Your task to perform on an android device: Open Google Maps and go to "Timeline" Image 0: 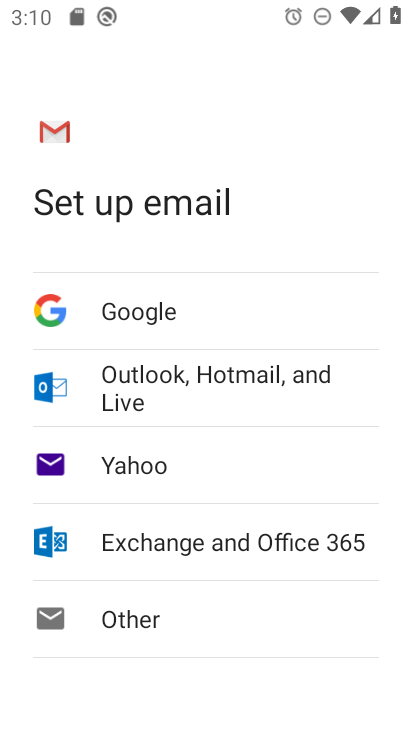
Step 0: press home button
Your task to perform on an android device: Open Google Maps and go to "Timeline" Image 1: 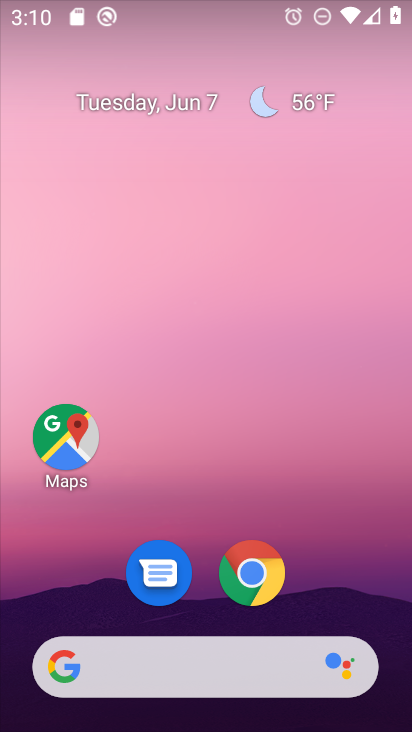
Step 1: click (64, 441)
Your task to perform on an android device: Open Google Maps and go to "Timeline" Image 2: 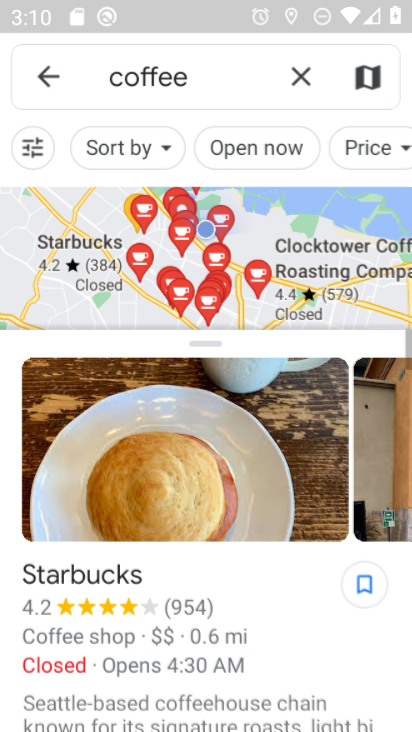
Step 2: click (54, 97)
Your task to perform on an android device: Open Google Maps and go to "Timeline" Image 3: 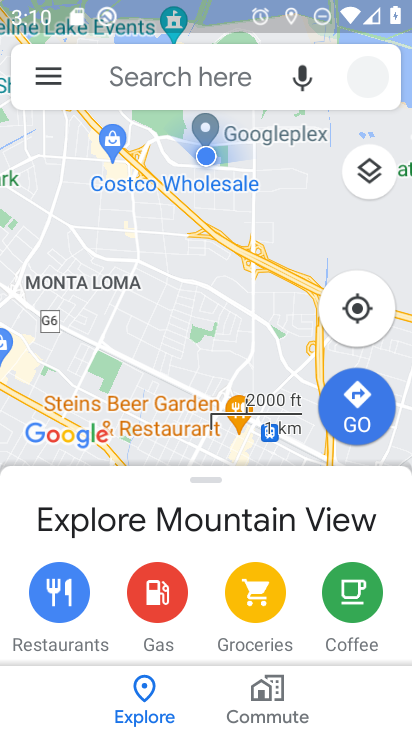
Step 3: click (54, 97)
Your task to perform on an android device: Open Google Maps and go to "Timeline" Image 4: 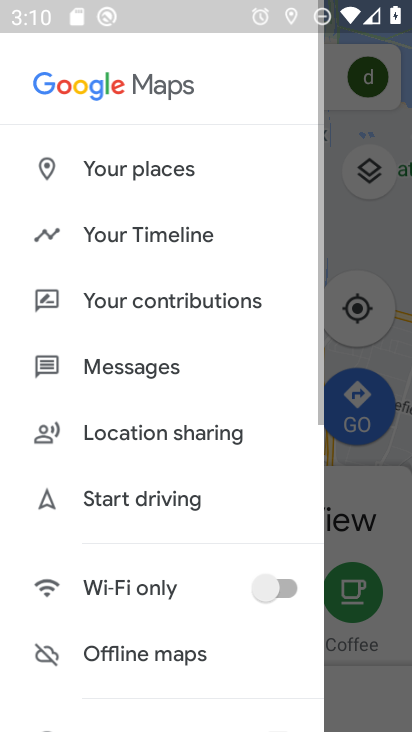
Step 4: click (182, 223)
Your task to perform on an android device: Open Google Maps and go to "Timeline" Image 5: 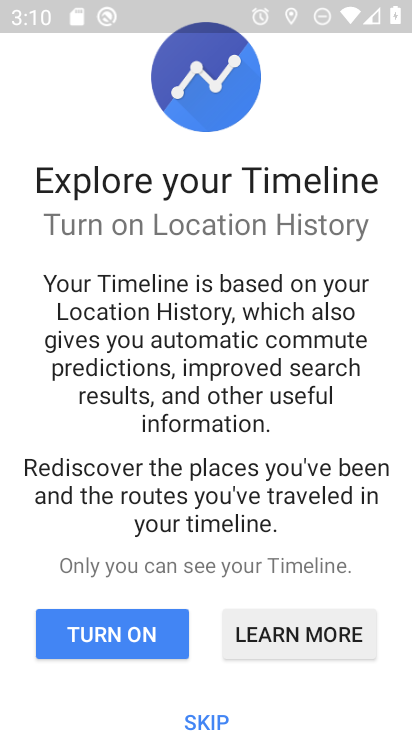
Step 5: click (210, 713)
Your task to perform on an android device: Open Google Maps and go to "Timeline" Image 6: 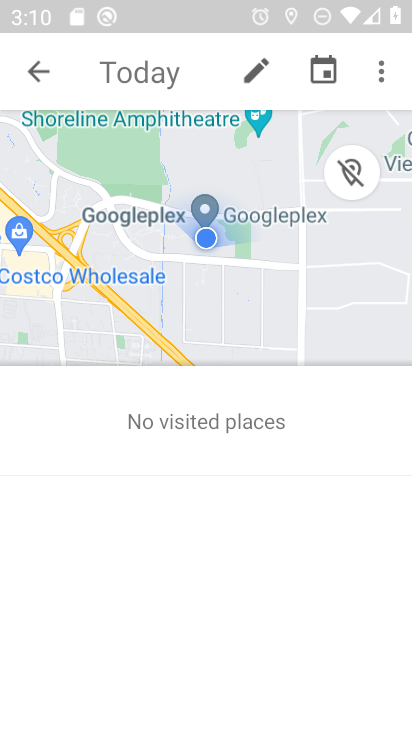
Step 6: task complete